Your task to perform on an android device: Add "logitech g pro" to the cart on newegg Image 0: 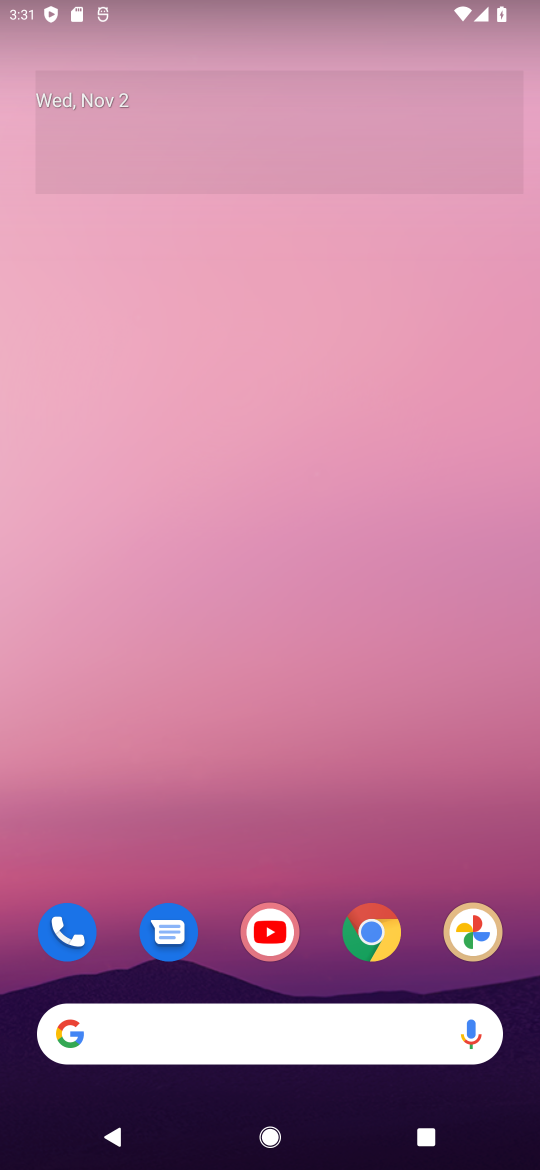
Step 0: click (389, 923)
Your task to perform on an android device: Add "logitech g pro" to the cart on newegg Image 1: 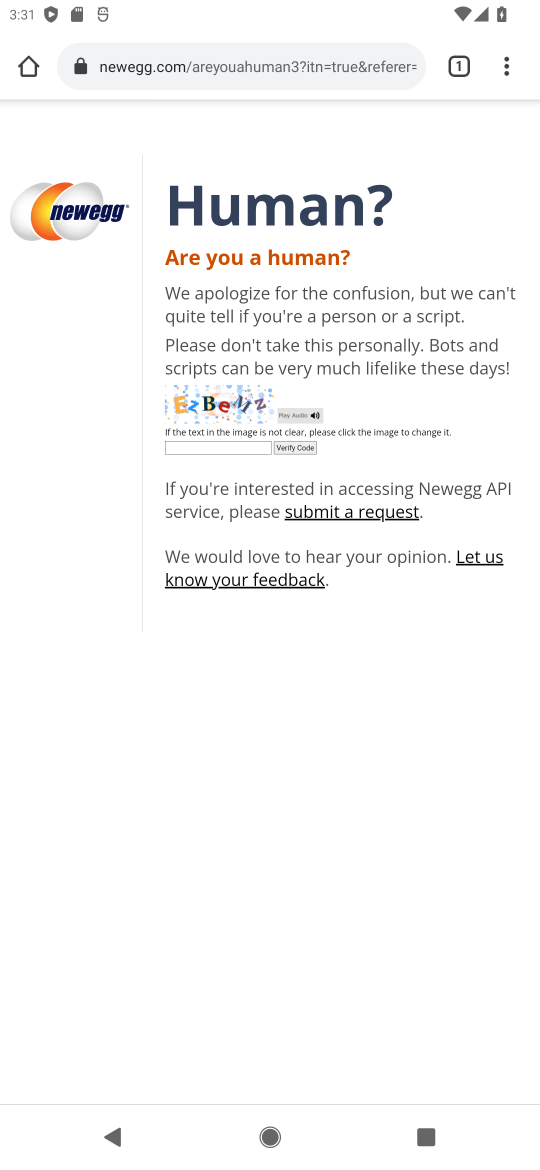
Step 1: click (272, 62)
Your task to perform on an android device: Add "logitech g pro" to the cart on newegg Image 2: 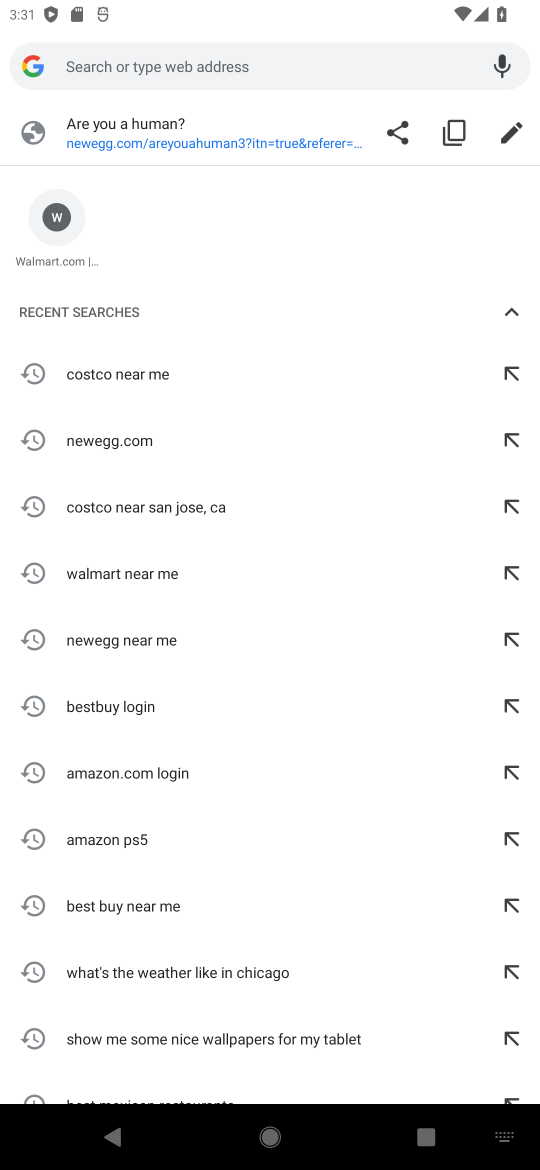
Step 2: click (126, 442)
Your task to perform on an android device: Add "logitech g pro" to the cart on newegg Image 3: 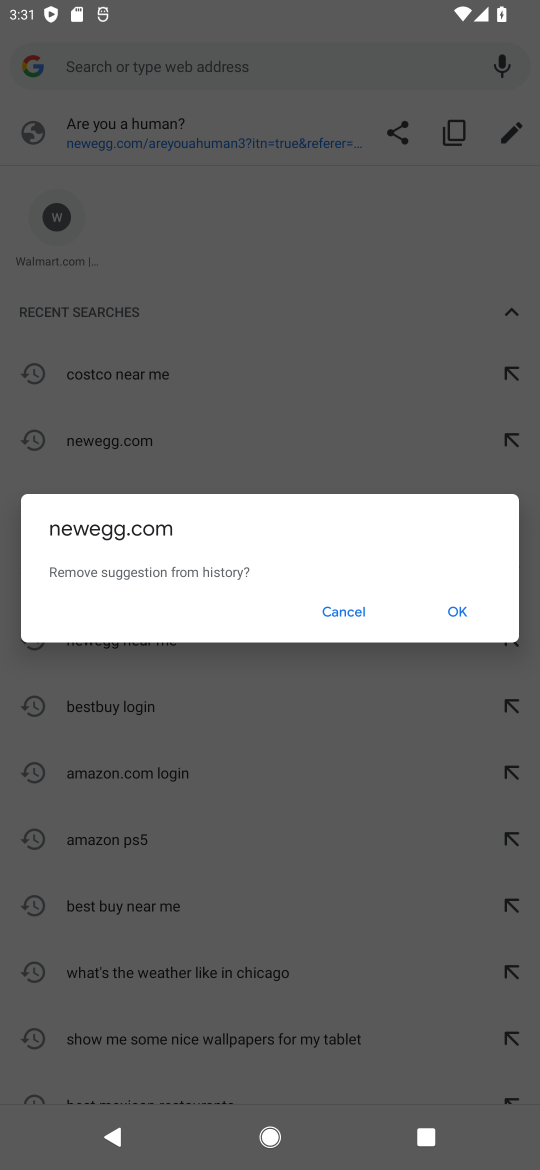
Step 3: click (353, 603)
Your task to perform on an android device: Add "logitech g pro" to the cart on newegg Image 4: 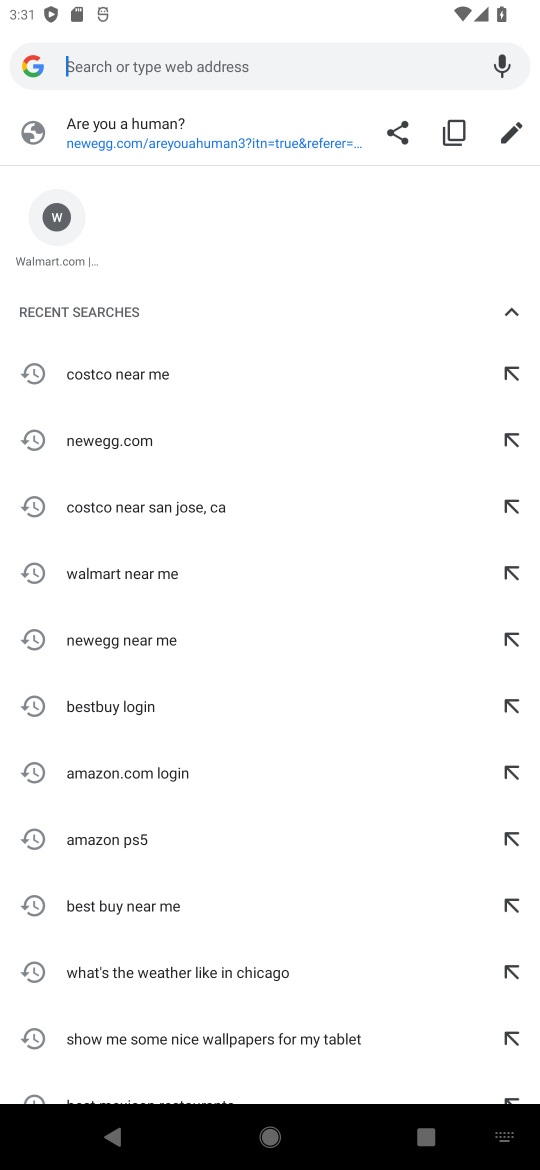
Step 4: click (143, 448)
Your task to perform on an android device: Add "logitech g pro" to the cart on newegg Image 5: 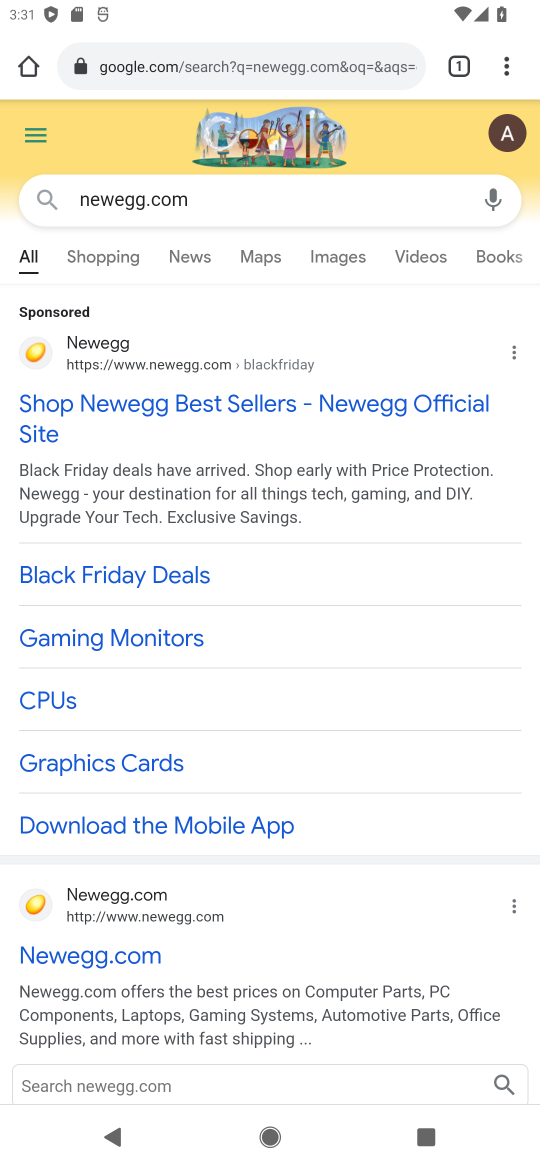
Step 5: drag from (134, 928) to (100, 355)
Your task to perform on an android device: Add "logitech g pro" to the cart on newegg Image 6: 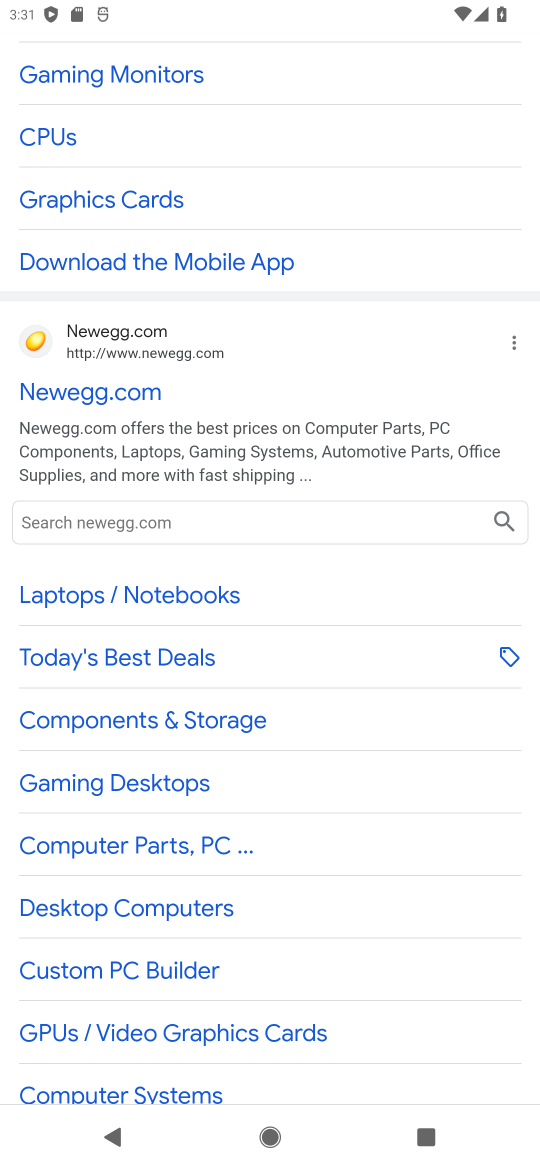
Step 6: click (101, 349)
Your task to perform on an android device: Add "logitech g pro" to the cart on newegg Image 7: 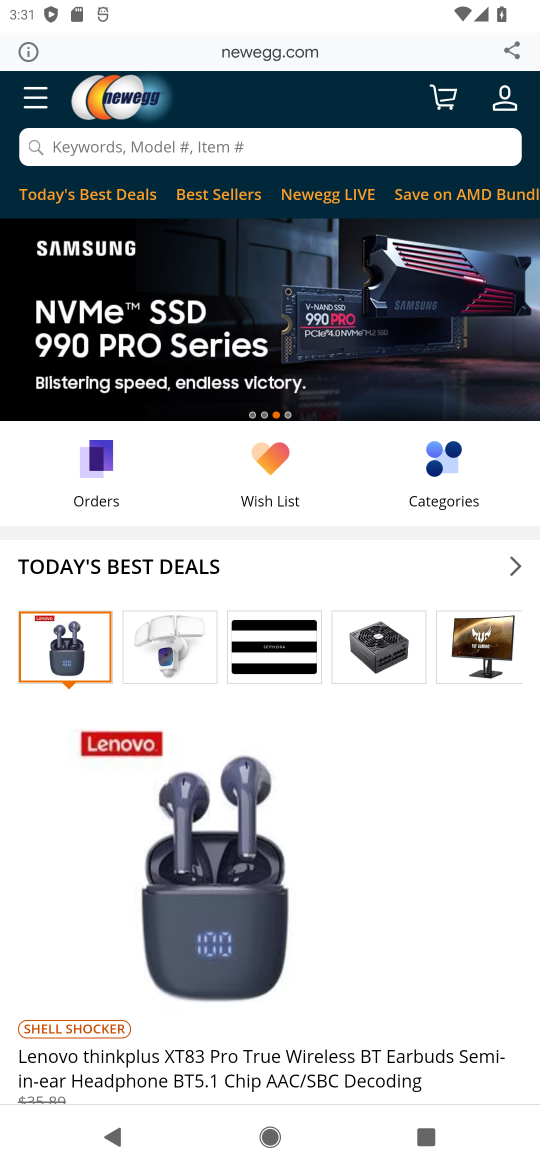
Step 7: click (246, 148)
Your task to perform on an android device: Add "logitech g pro" to the cart on newegg Image 8: 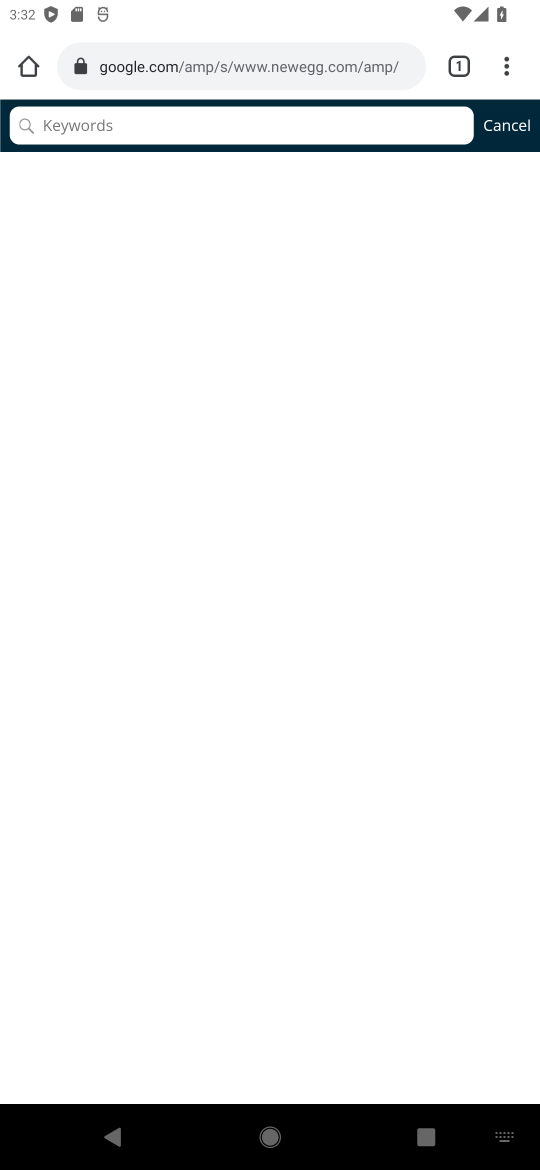
Step 8: type "logitech g pro"
Your task to perform on an android device: Add "logitech g pro" to the cart on newegg Image 9: 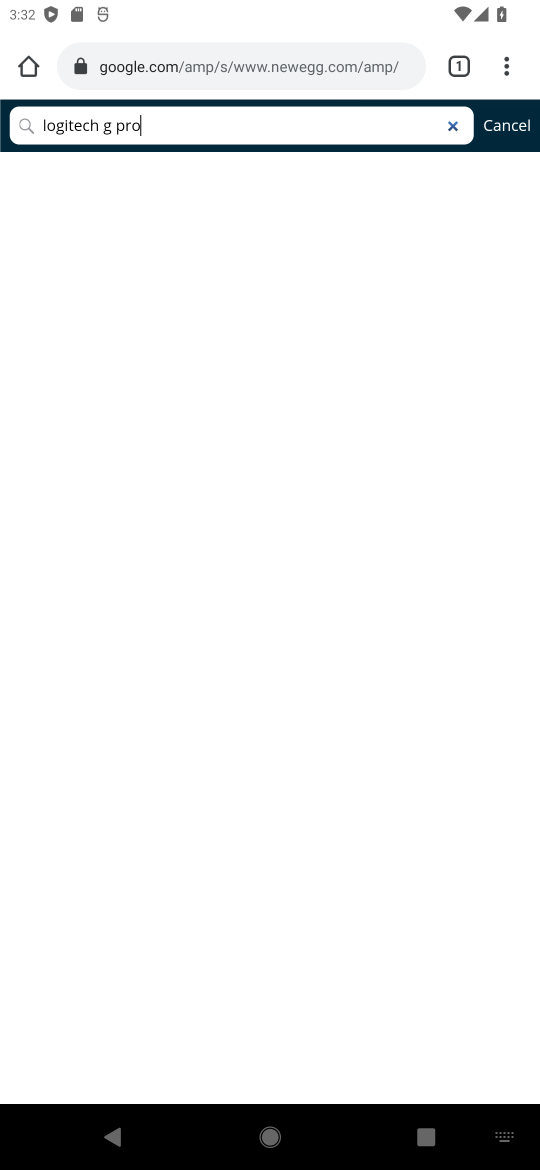
Step 9: click (412, 204)
Your task to perform on an android device: Add "logitech g pro" to the cart on newegg Image 10: 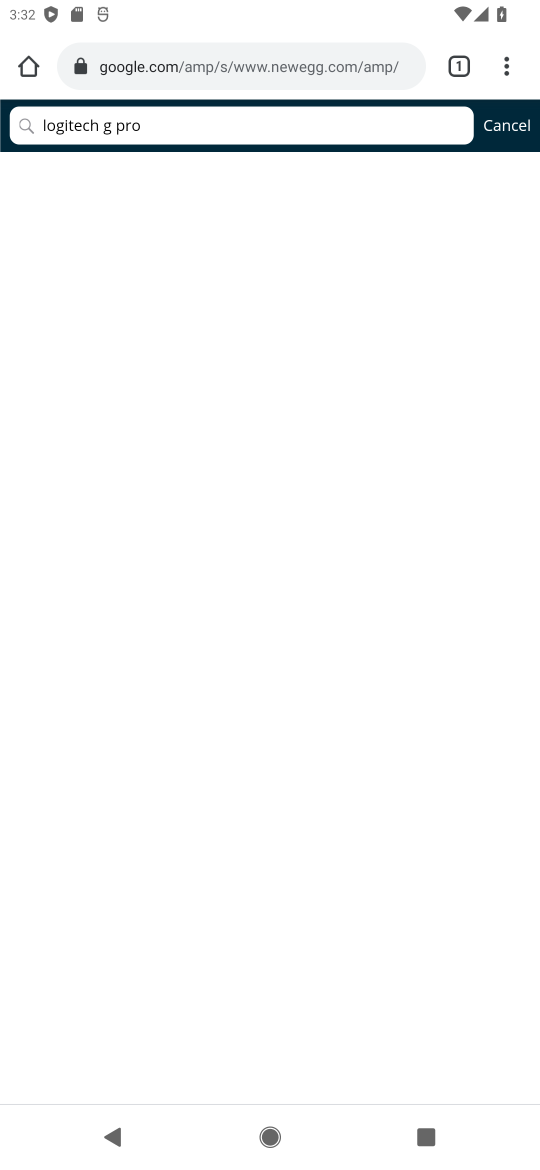
Step 10: click (380, 130)
Your task to perform on an android device: Add "logitech g pro" to the cart on newegg Image 11: 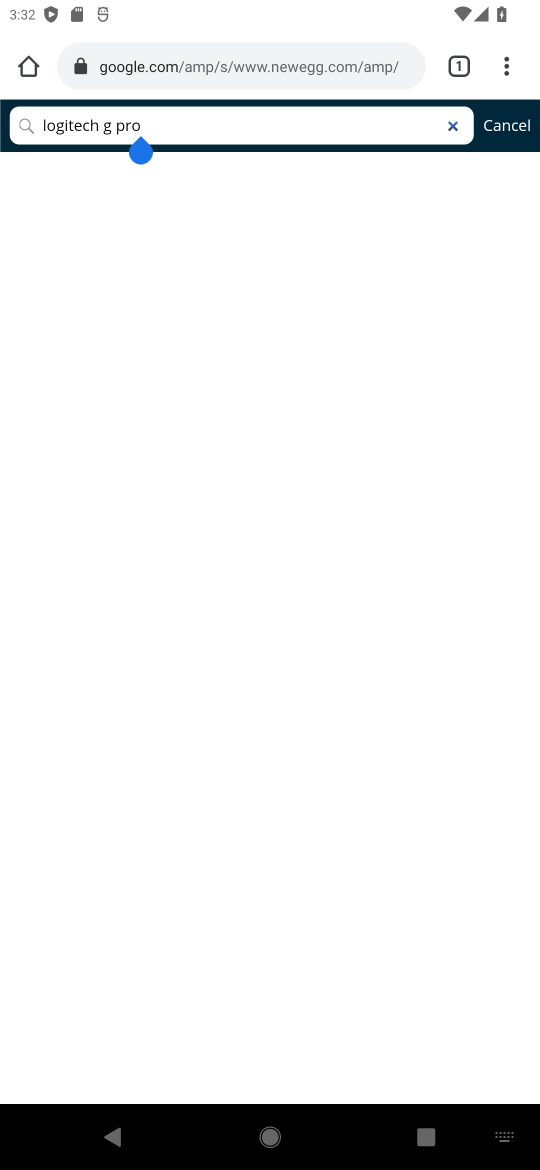
Step 11: click (431, 234)
Your task to perform on an android device: Add "logitech g pro" to the cart on newegg Image 12: 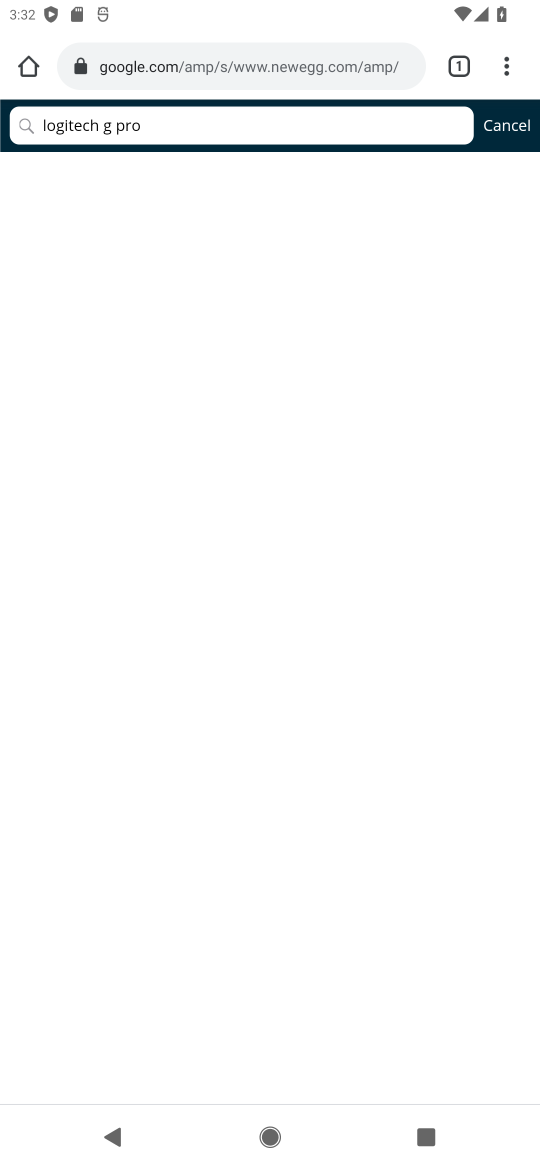
Step 12: click (497, 127)
Your task to perform on an android device: Add "logitech g pro" to the cart on newegg Image 13: 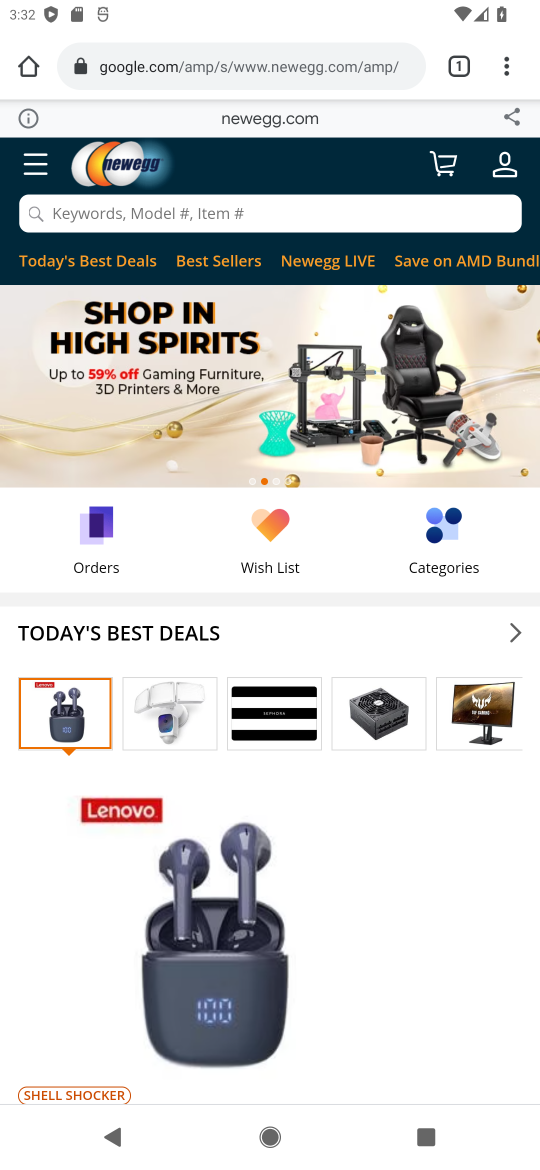
Step 13: type "logitech g pro"
Your task to perform on an android device: Add "logitech g pro" to the cart on newegg Image 14: 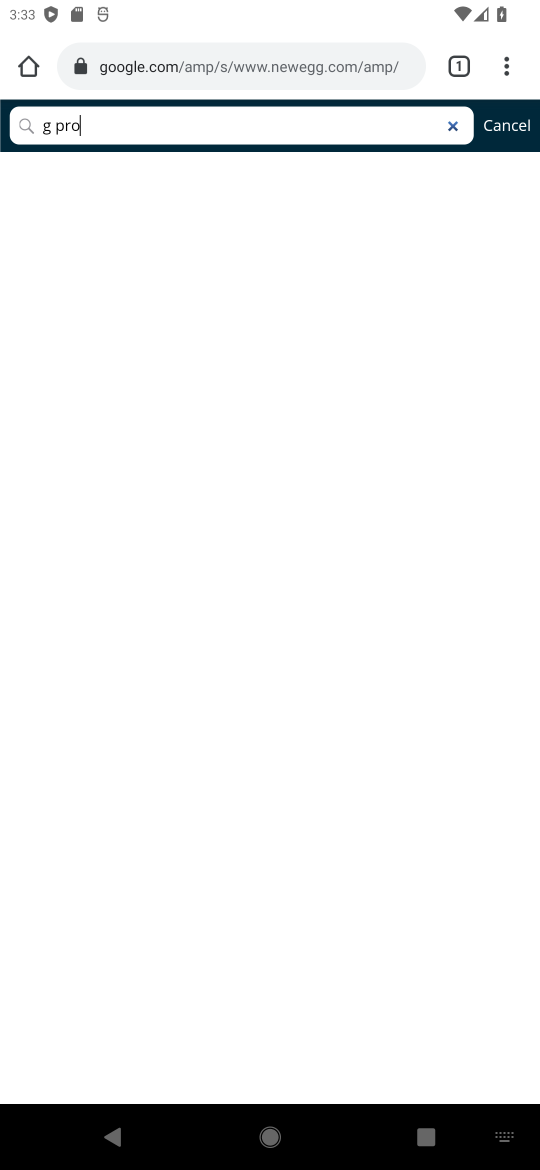
Step 14: click (453, 120)
Your task to perform on an android device: Add "logitech g pro" to the cart on newegg Image 15: 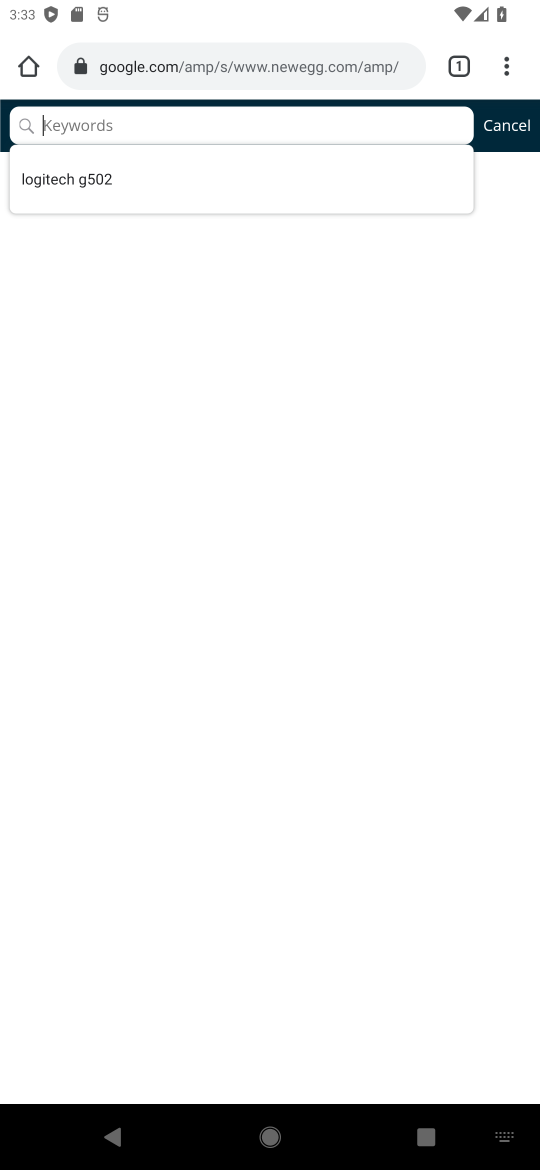
Step 15: type "logitech g pro"
Your task to perform on an android device: Add "logitech g pro" to the cart on newegg Image 16: 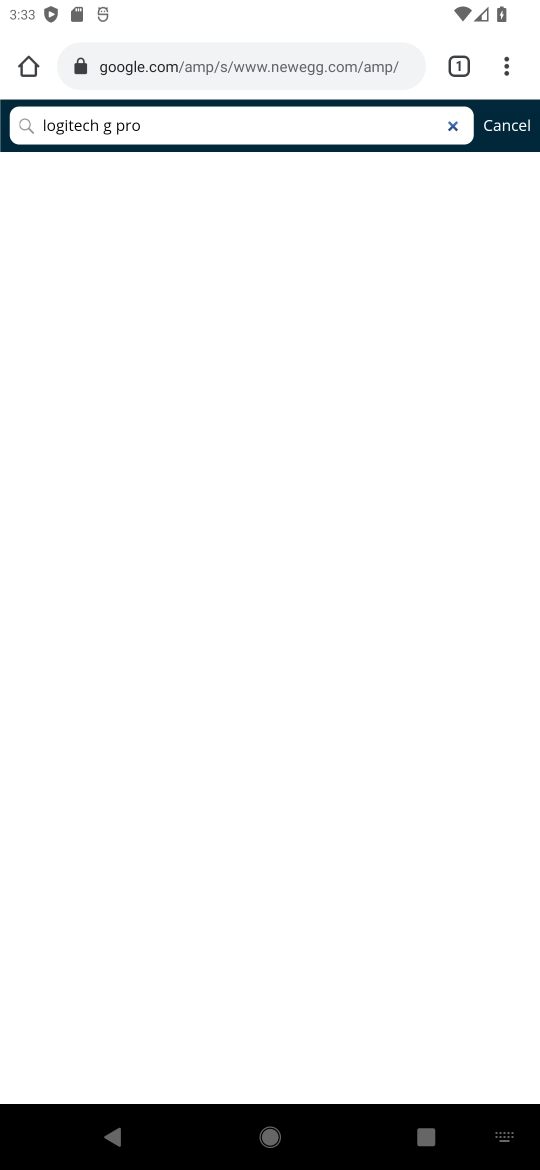
Step 16: task complete